Your task to perform on an android device: Open Google Chrome and click the shortcut for Amazon.com Image 0: 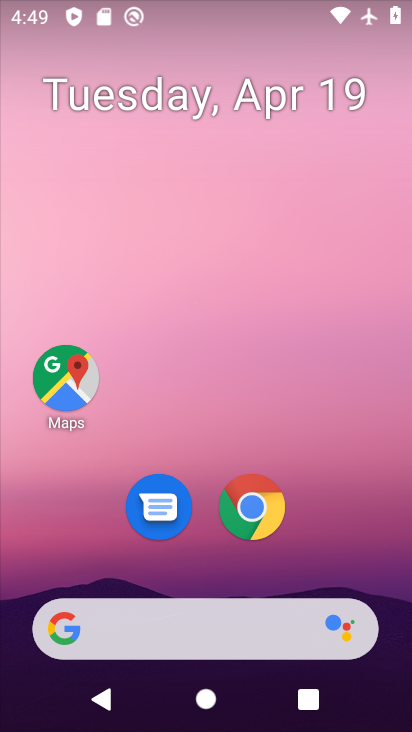
Step 0: drag from (323, 552) to (306, 0)
Your task to perform on an android device: Open Google Chrome and click the shortcut for Amazon.com Image 1: 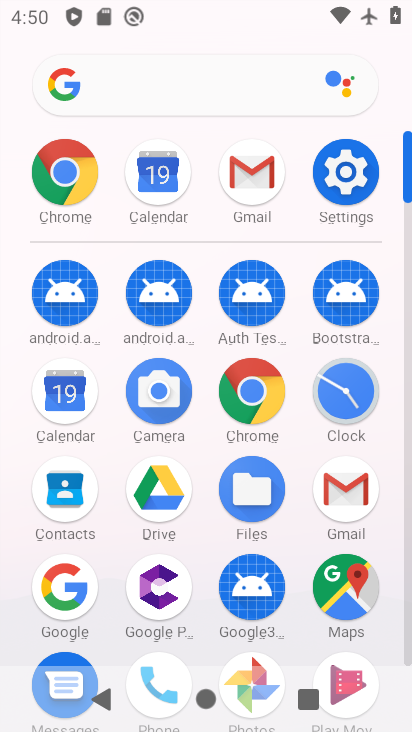
Step 1: click (257, 397)
Your task to perform on an android device: Open Google Chrome and click the shortcut for Amazon.com Image 2: 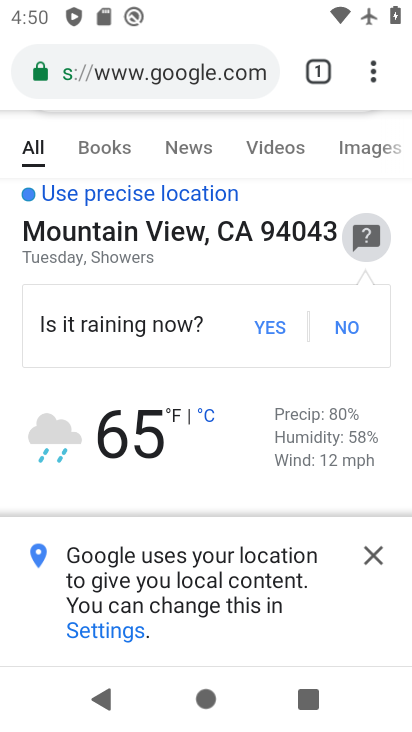
Step 2: drag from (377, 64) to (134, 153)
Your task to perform on an android device: Open Google Chrome and click the shortcut for Amazon.com Image 3: 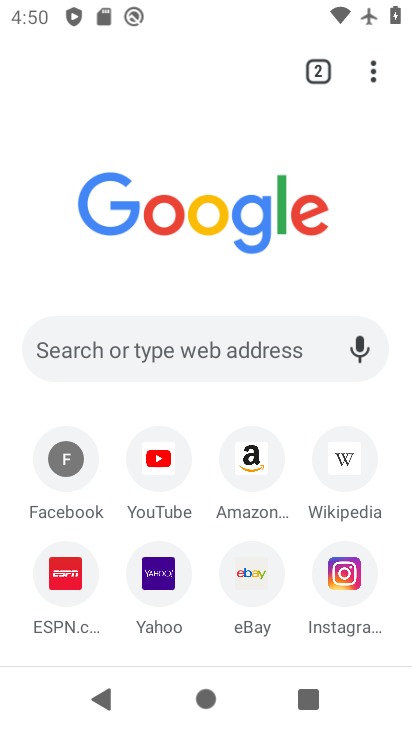
Step 3: click (250, 445)
Your task to perform on an android device: Open Google Chrome and click the shortcut for Amazon.com Image 4: 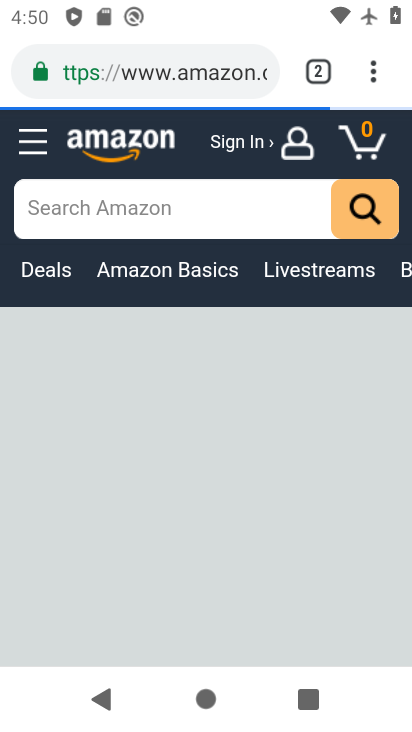
Step 4: task complete